Your task to perform on an android device: What's the weather today? Image 0: 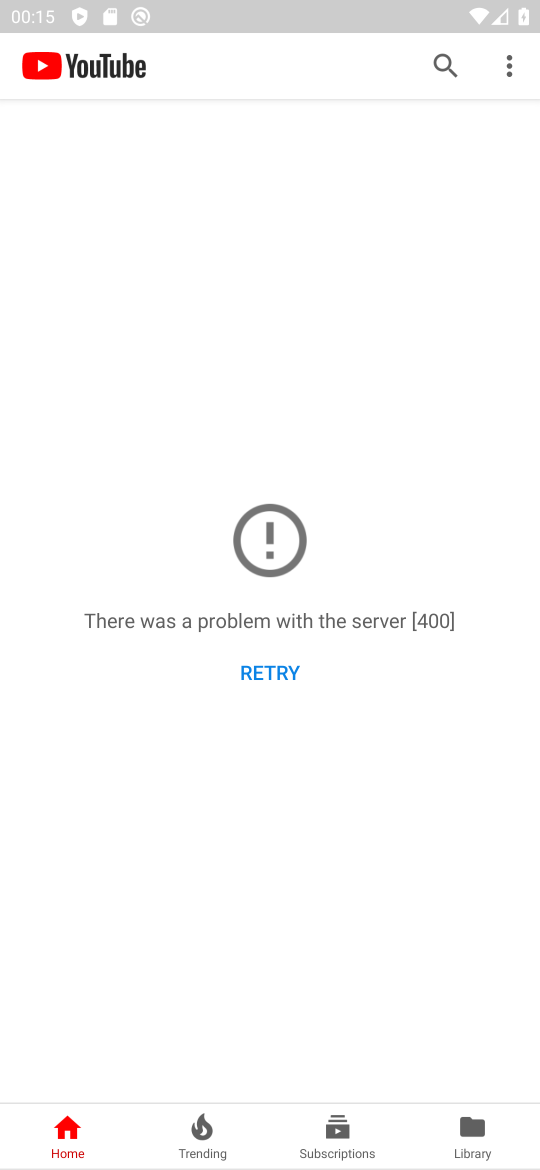
Step 0: press back button
Your task to perform on an android device: What's the weather today? Image 1: 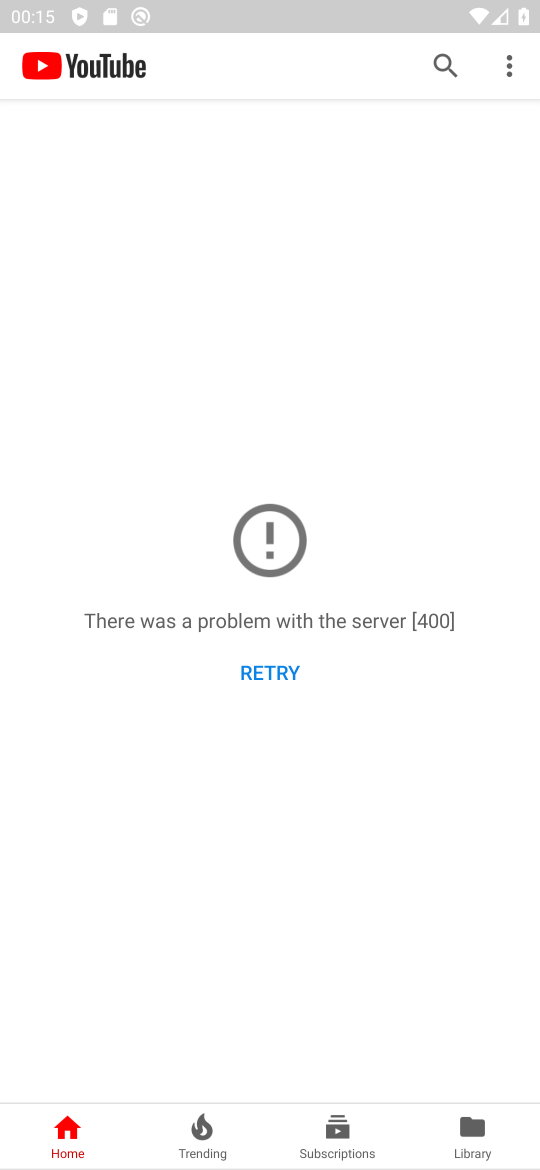
Step 1: press home button
Your task to perform on an android device: What's the weather today? Image 2: 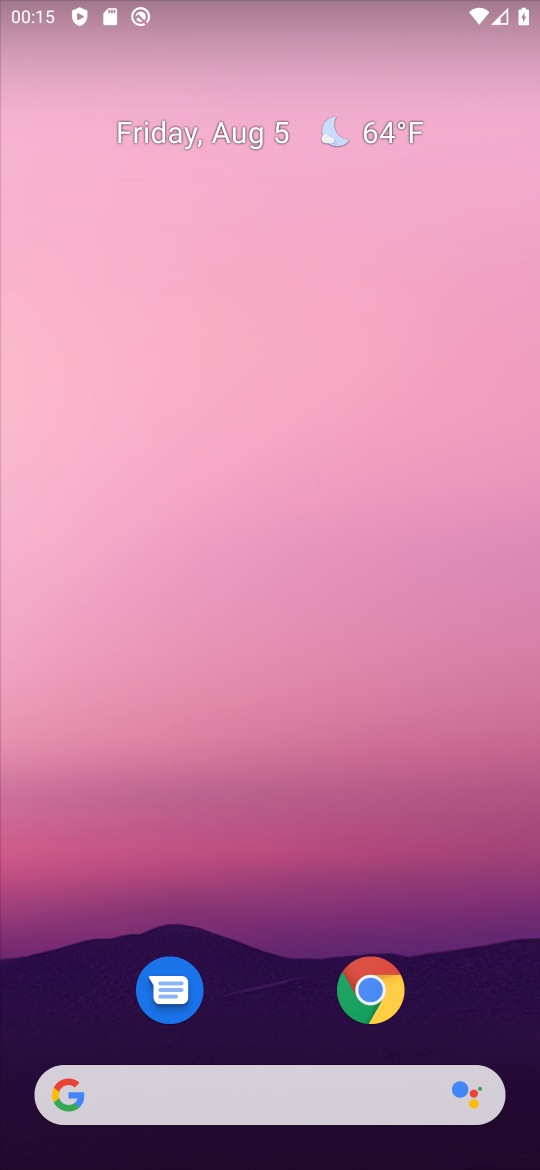
Step 2: click (380, 998)
Your task to perform on an android device: What's the weather today? Image 3: 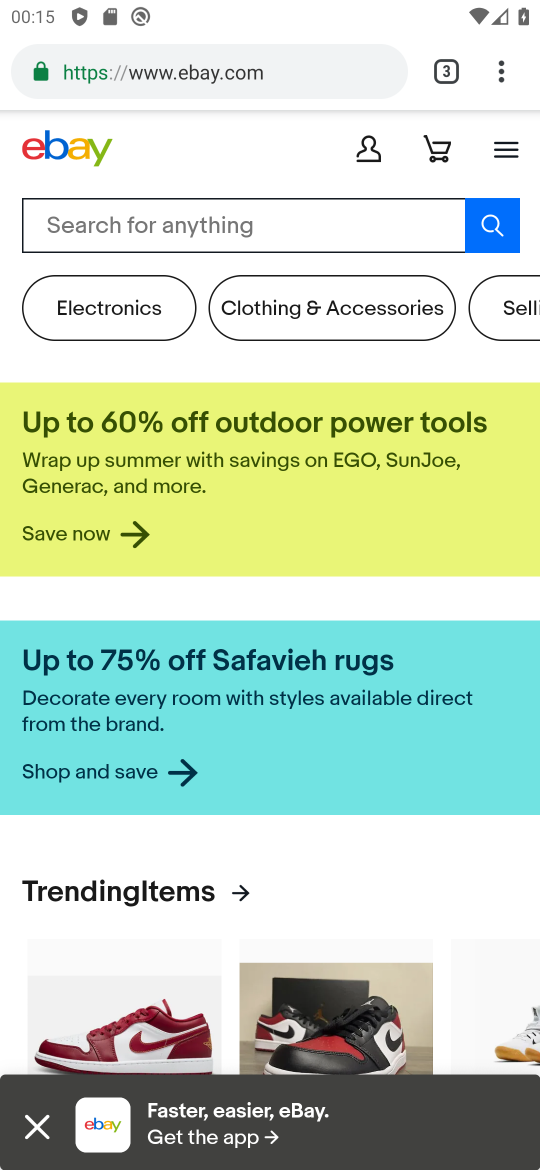
Step 3: click (311, 88)
Your task to perform on an android device: What's the weather today? Image 4: 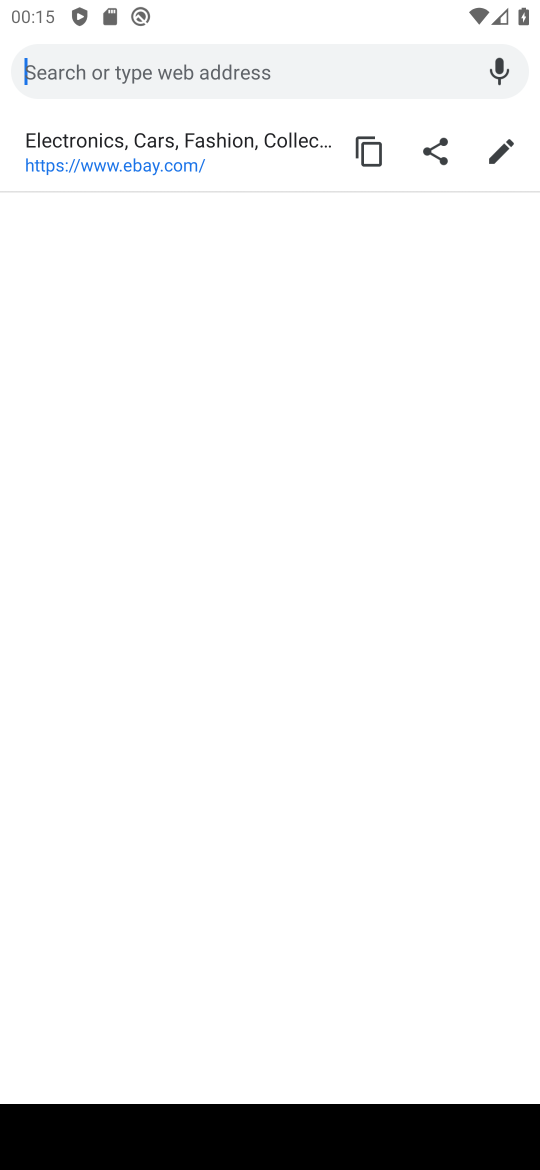
Step 4: type "What's the weather today?"
Your task to perform on an android device: What's the weather today? Image 5: 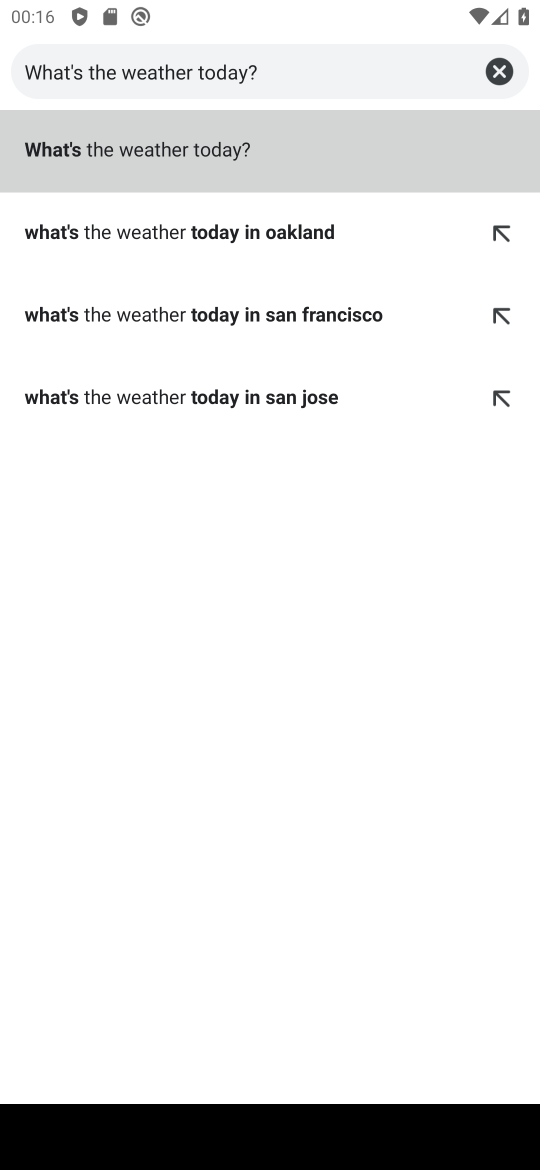
Step 5: click (252, 155)
Your task to perform on an android device: What's the weather today? Image 6: 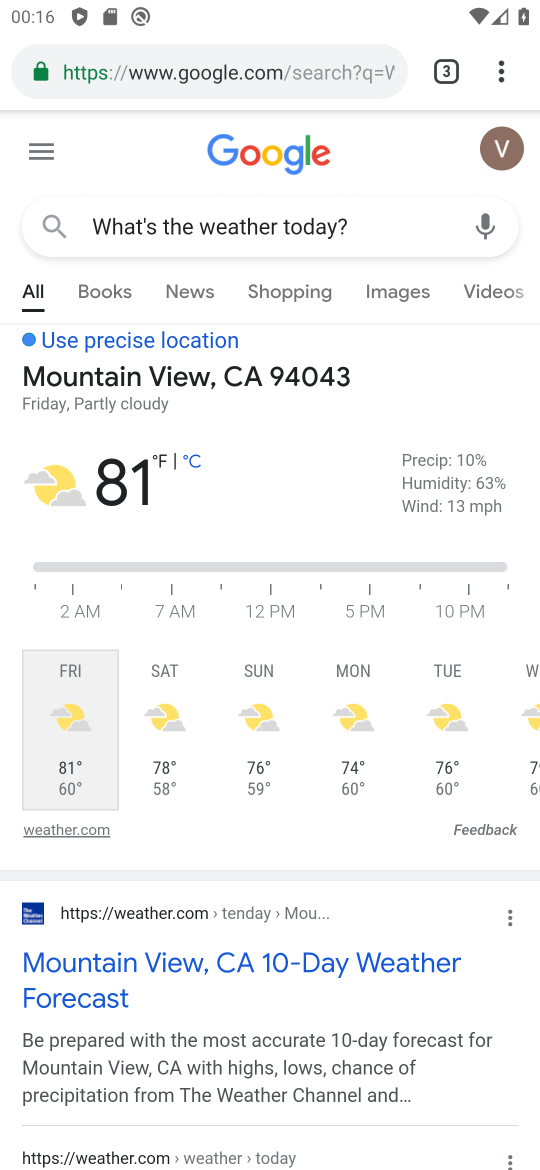
Step 6: task complete